Your task to perform on an android device: empty trash in the gmail app Image 0: 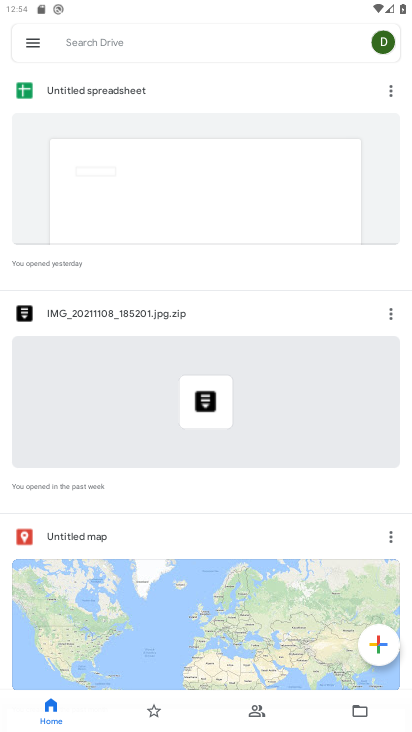
Step 0: press home button
Your task to perform on an android device: empty trash in the gmail app Image 1: 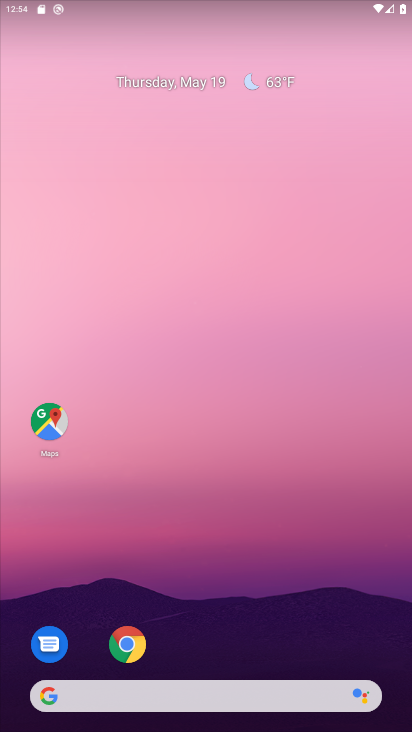
Step 1: drag from (212, 525) to (261, 352)
Your task to perform on an android device: empty trash in the gmail app Image 2: 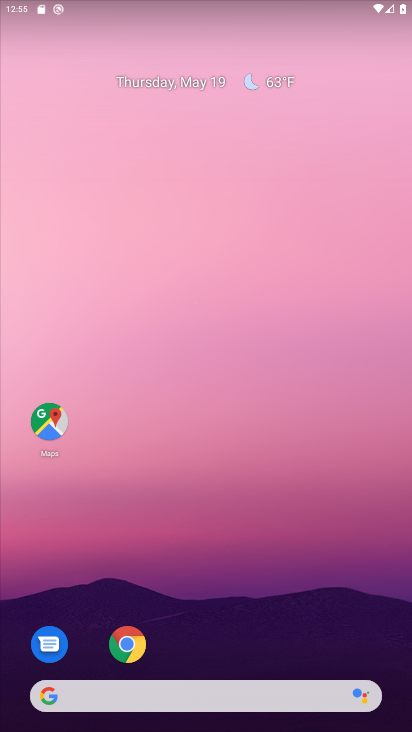
Step 2: drag from (206, 637) to (351, 235)
Your task to perform on an android device: empty trash in the gmail app Image 3: 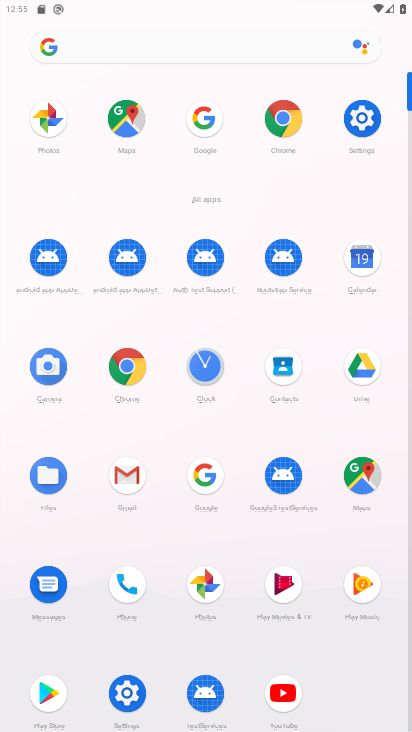
Step 3: click (127, 484)
Your task to perform on an android device: empty trash in the gmail app Image 4: 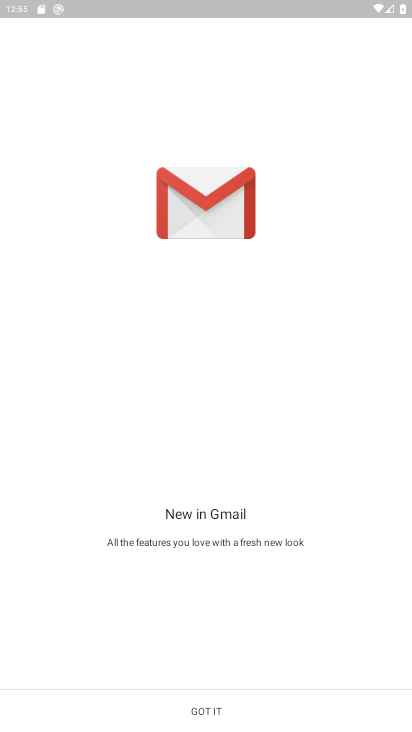
Step 4: click (204, 700)
Your task to perform on an android device: empty trash in the gmail app Image 5: 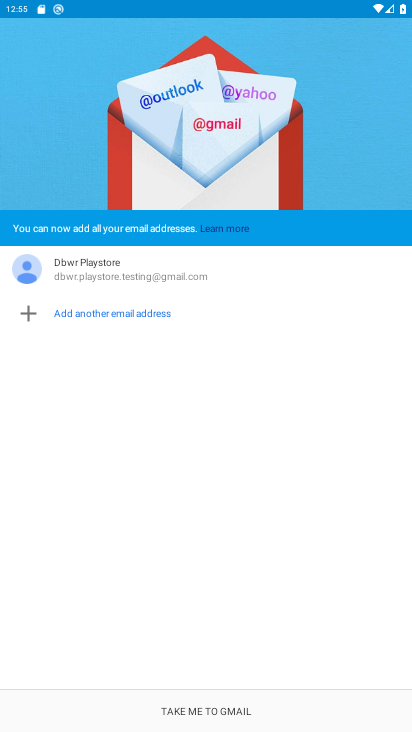
Step 5: click (181, 716)
Your task to perform on an android device: empty trash in the gmail app Image 6: 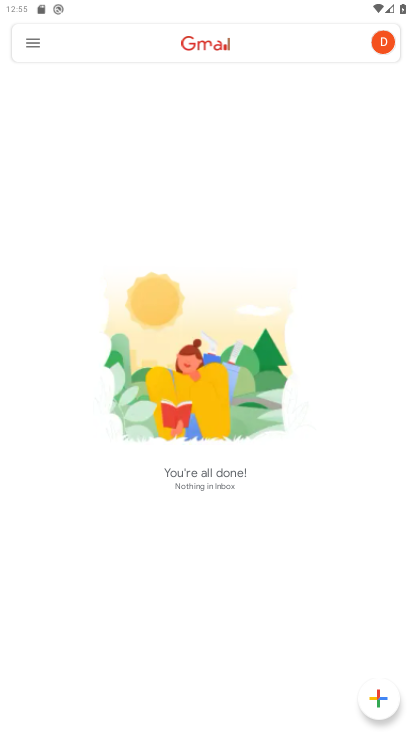
Step 6: click (36, 46)
Your task to perform on an android device: empty trash in the gmail app Image 7: 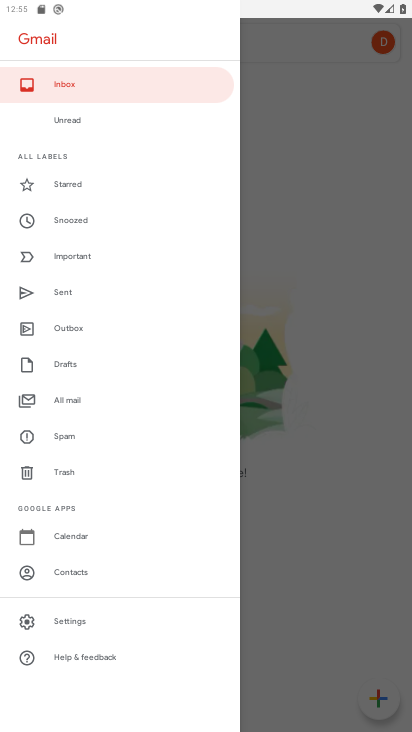
Step 7: click (56, 479)
Your task to perform on an android device: empty trash in the gmail app Image 8: 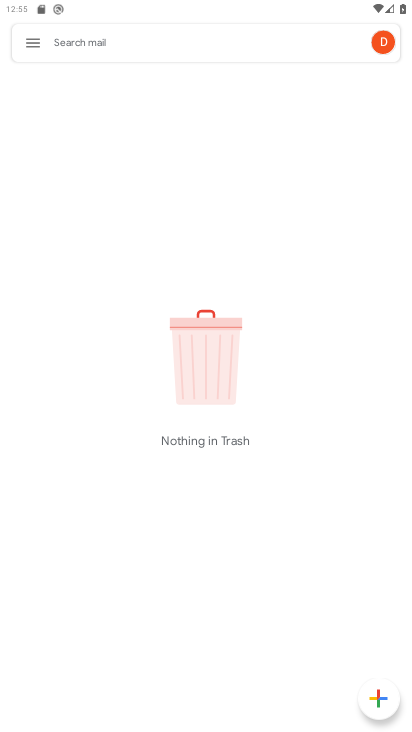
Step 8: task complete